Your task to perform on an android device: empty trash in the gmail app Image 0: 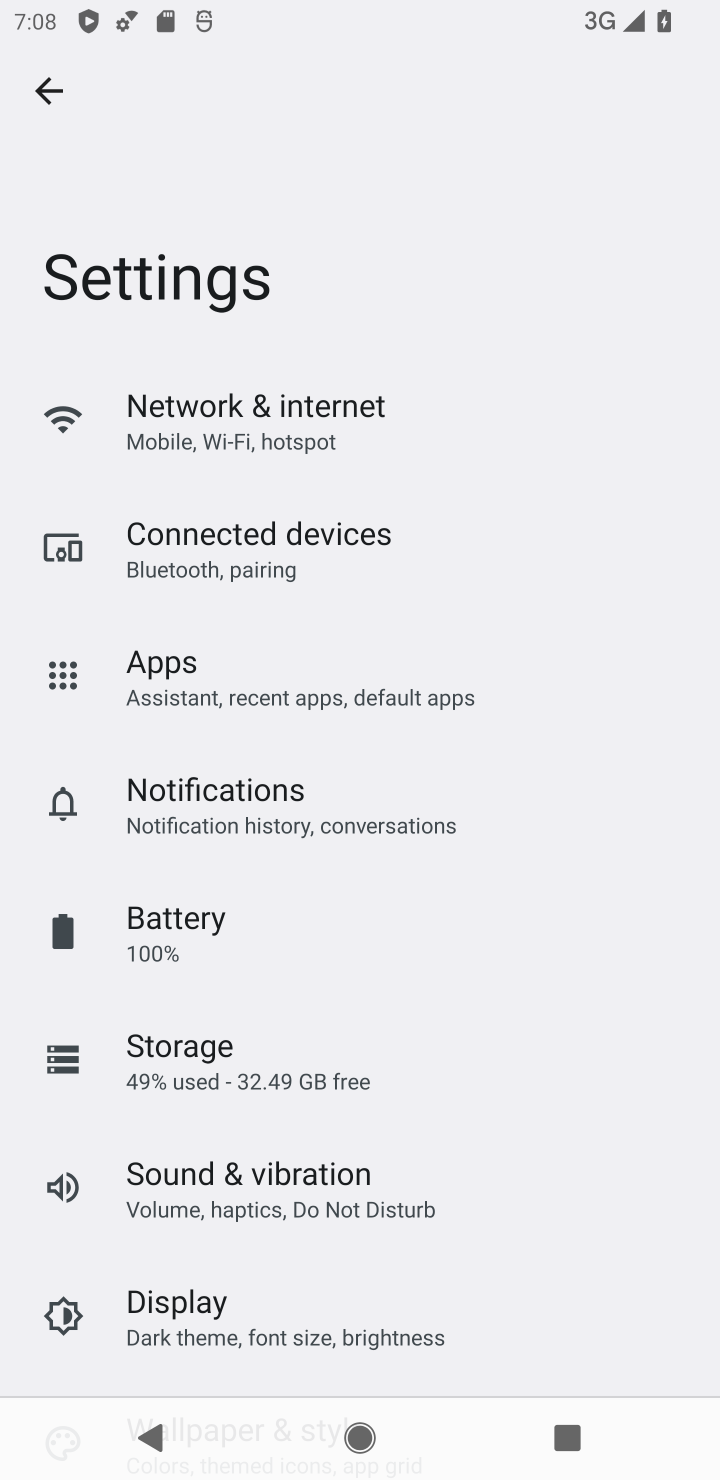
Step 0: press home button
Your task to perform on an android device: empty trash in the gmail app Image 1: 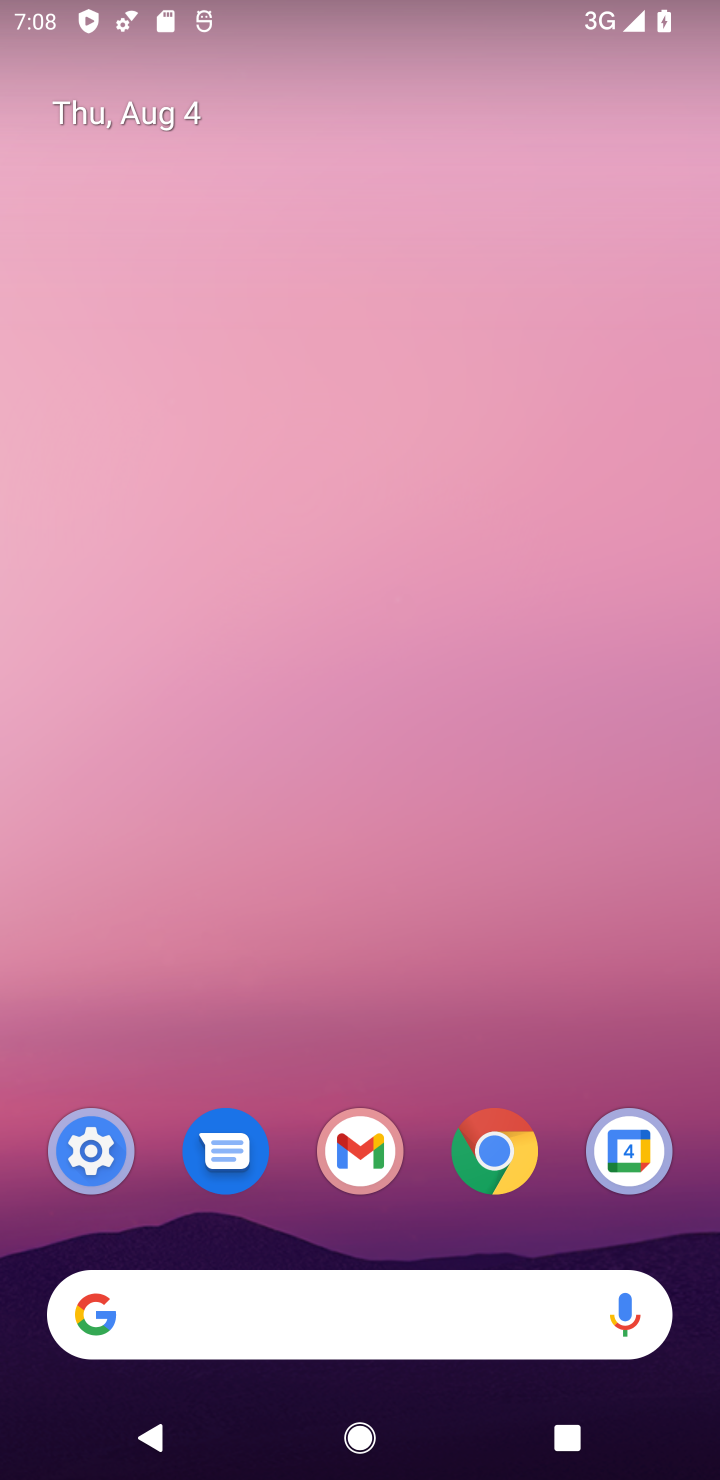
Step 1: click (606, 1056)
Your task to perform on an android device: empty trash in the gmail app Image 2: 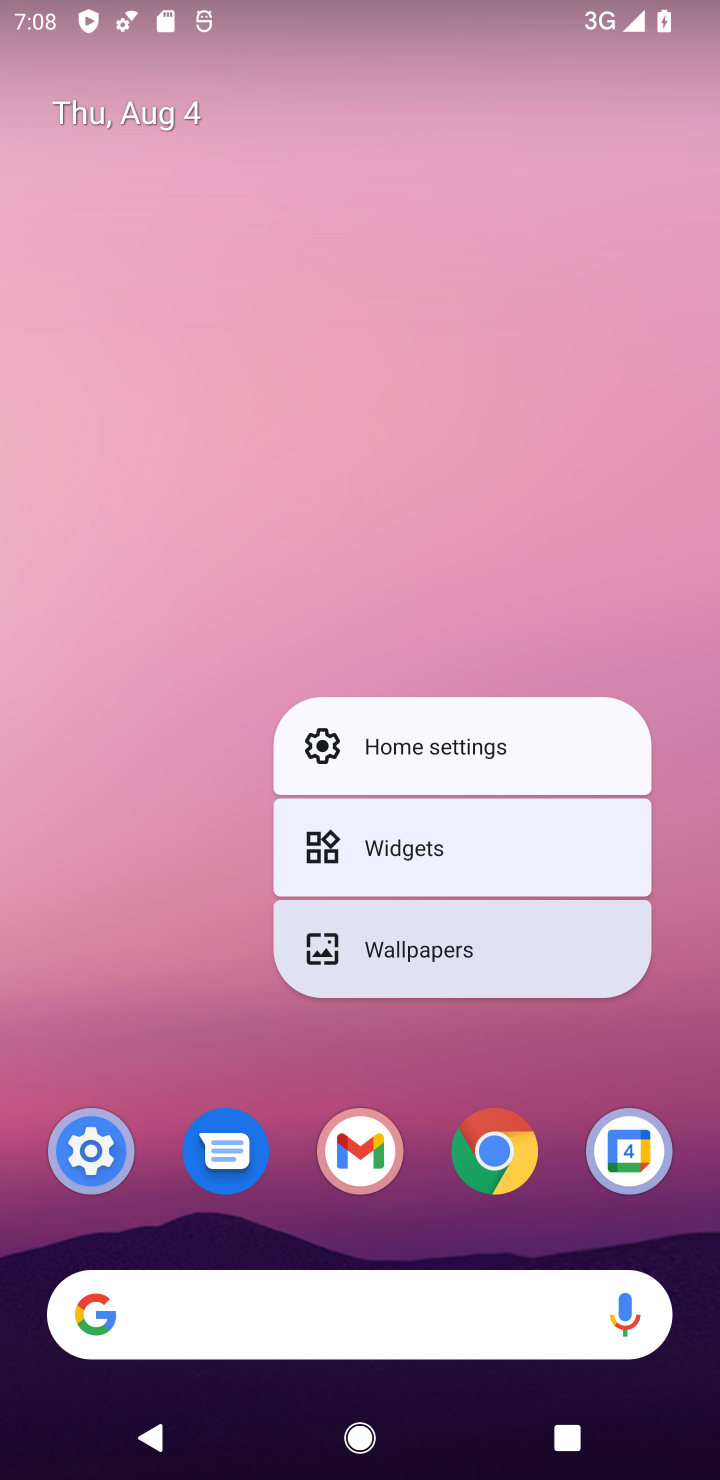
Step 2: click (352, 1172)
Your task to perform on an android device: empty trash in the gmail app Image 3: 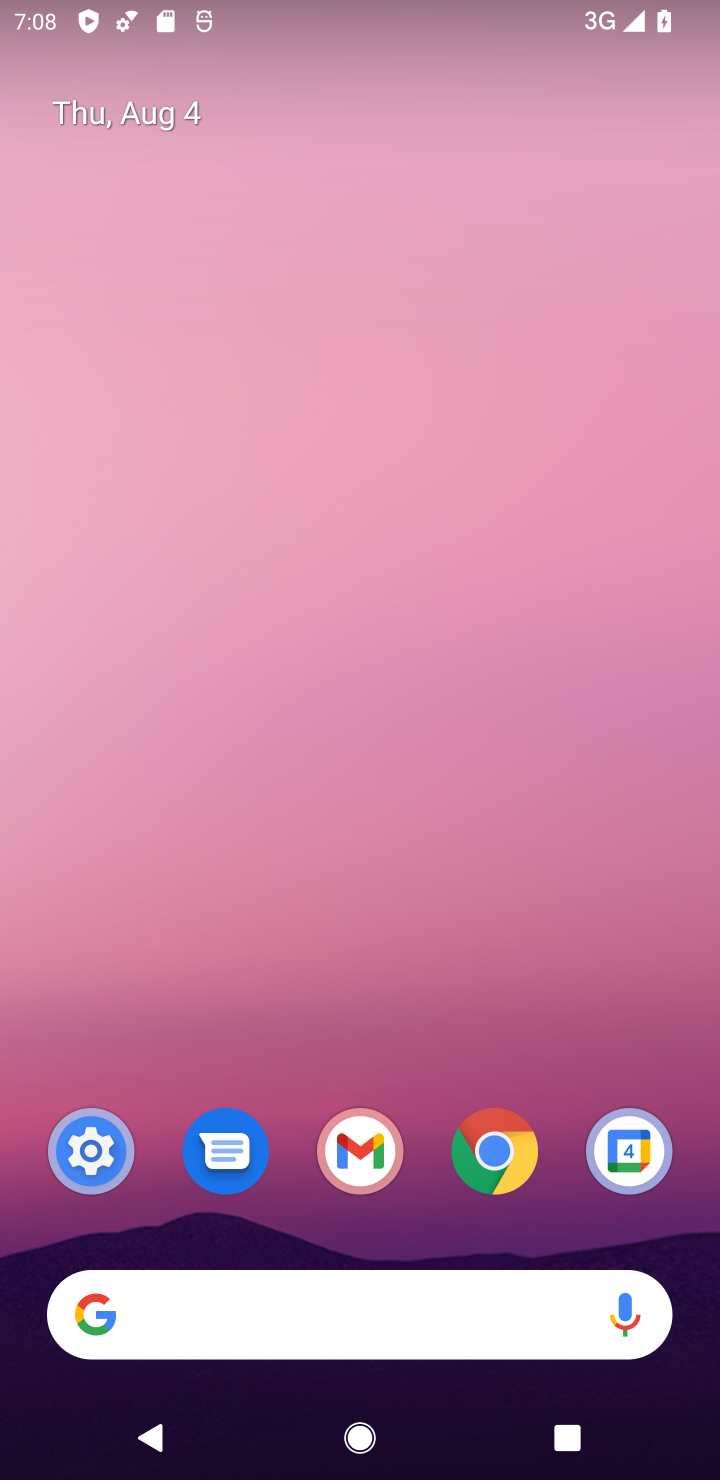
Step 3: click (350, 1135)
Your task to perform on an android device: empty trash in the gmail app Image 4: 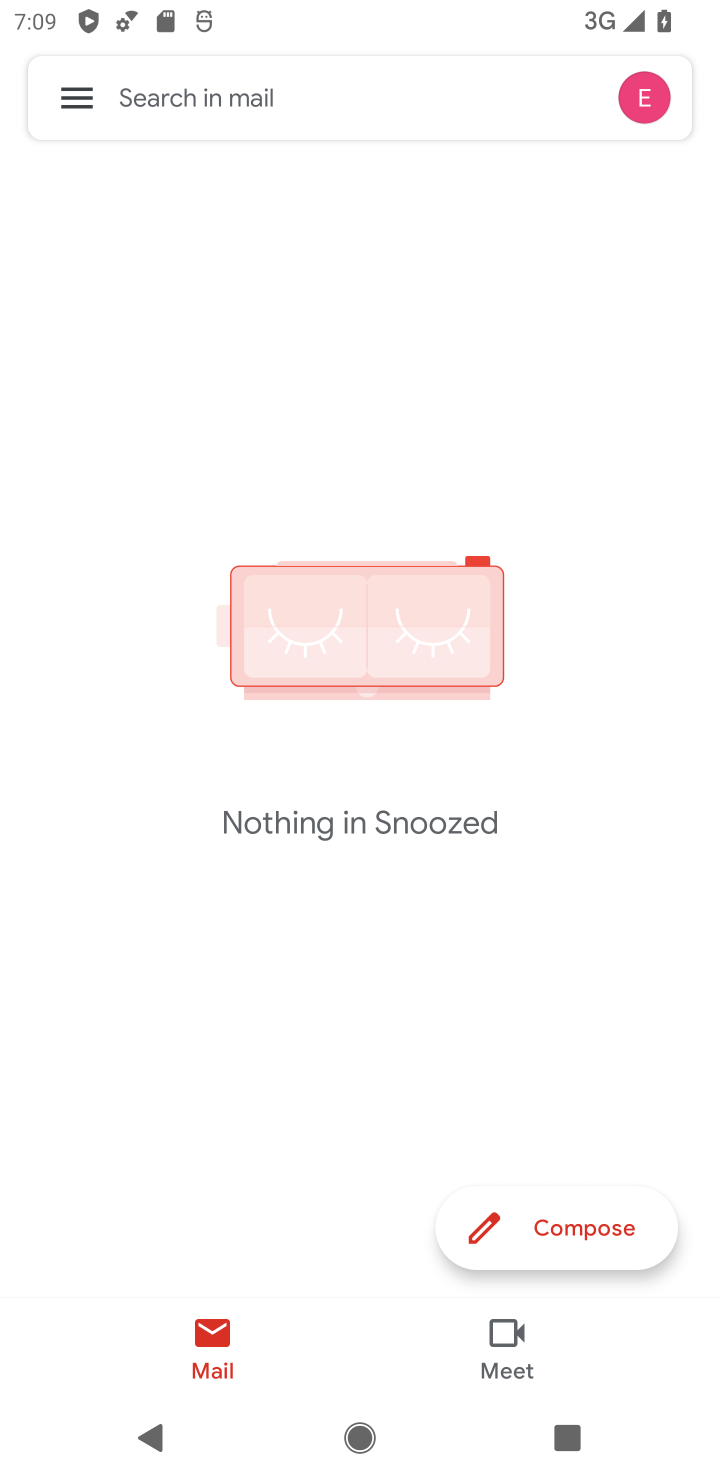
Step 4: click (67, 103)
Your task to perform on an android device: empty trash in the gmail app Image 5: 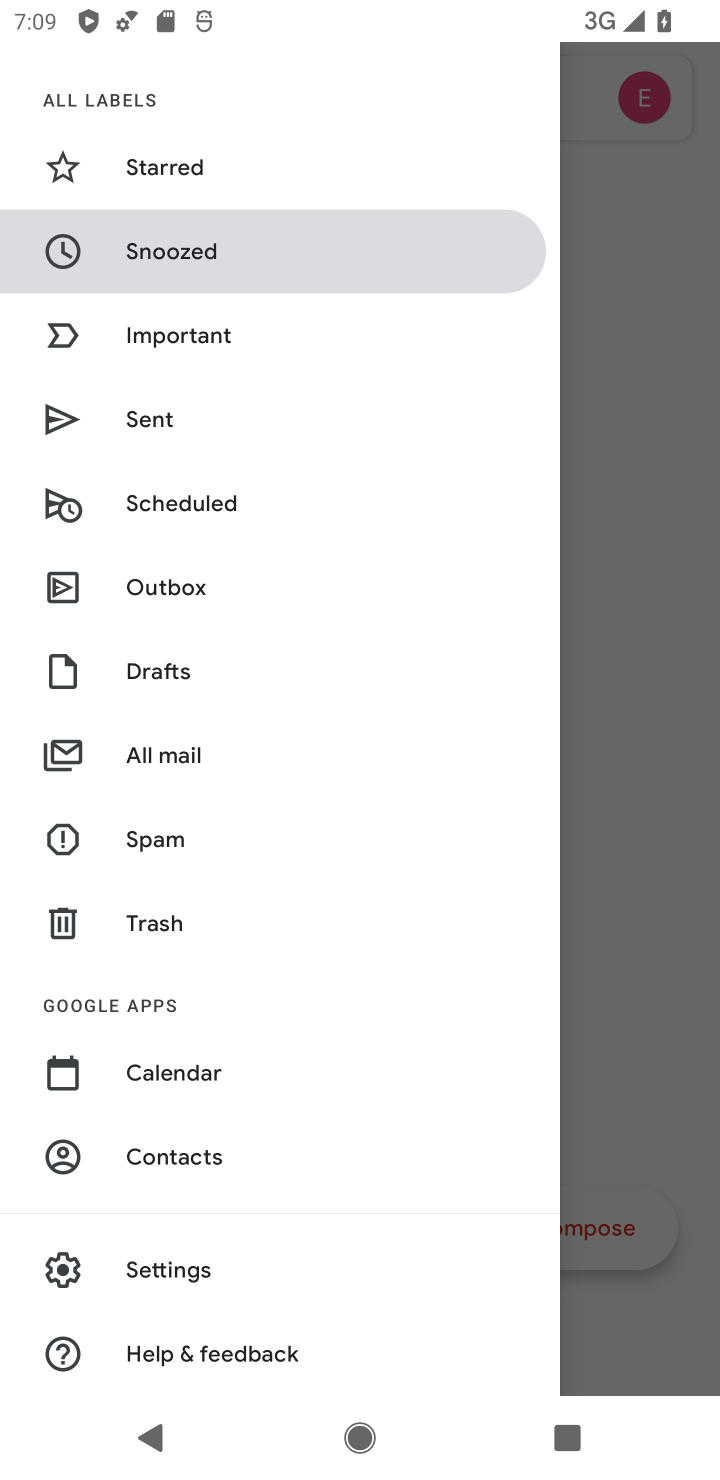
Step 5: click (158, 923)
Your task to perform on an android device: empty trash in the gmail app Image 6: 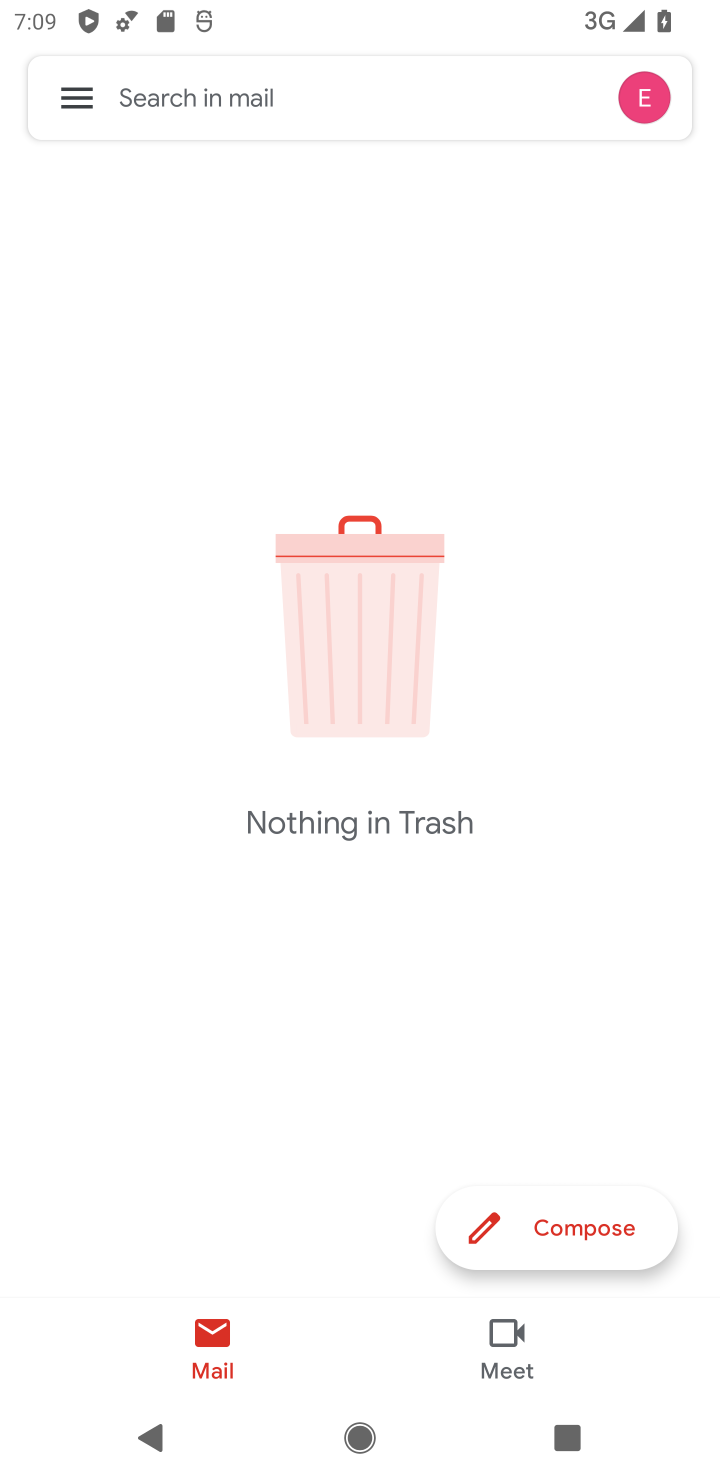
Step 6: task complete